Your task to perform on an android device: Open Wikipedia Image 0: 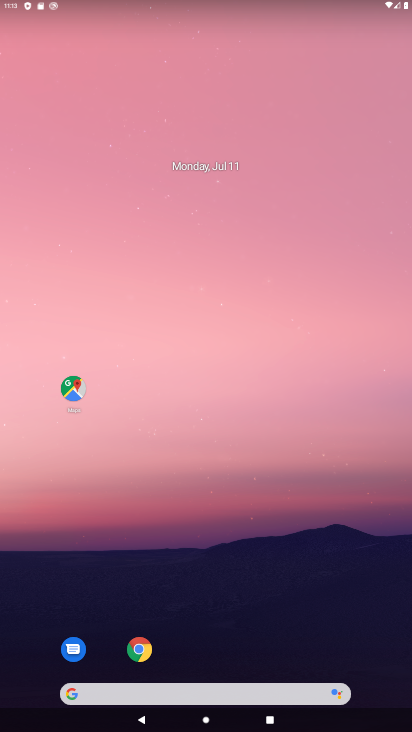
Step 0: click (145, 647)
Your task to perform on an android device: Open Wikipedia Image 1: 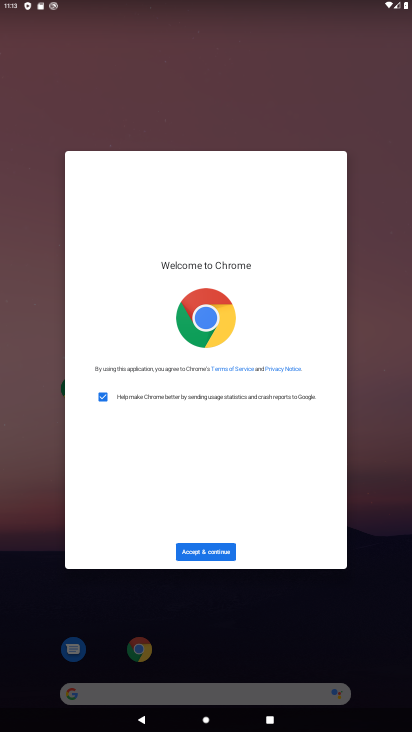
Step 1: click (204, 549)
Your task to perform on an android device: Open Wikipedia Image 2: 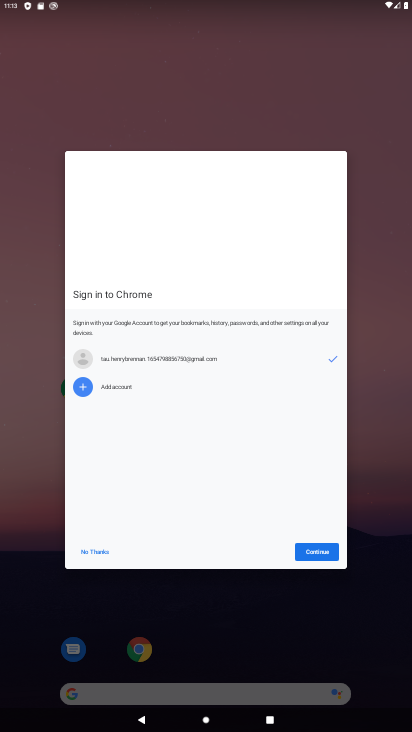
Step 2: click (328, 541)
Your task to perform on an android device: Open Wikipedia Image 3: 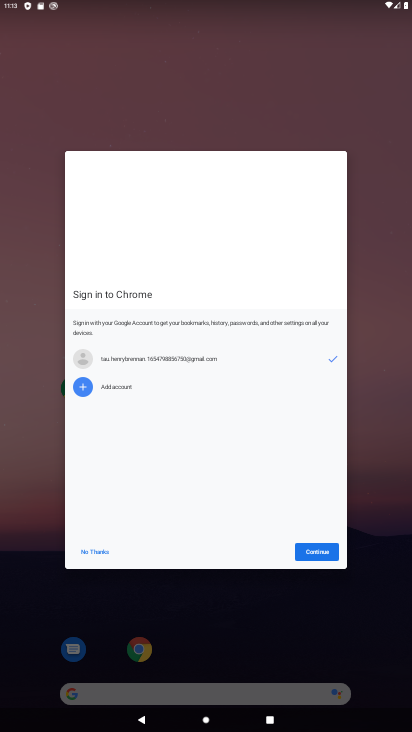
Step 3: click (315, 554)
Your task to perform on an android device: Open Wikipedia Image 4: 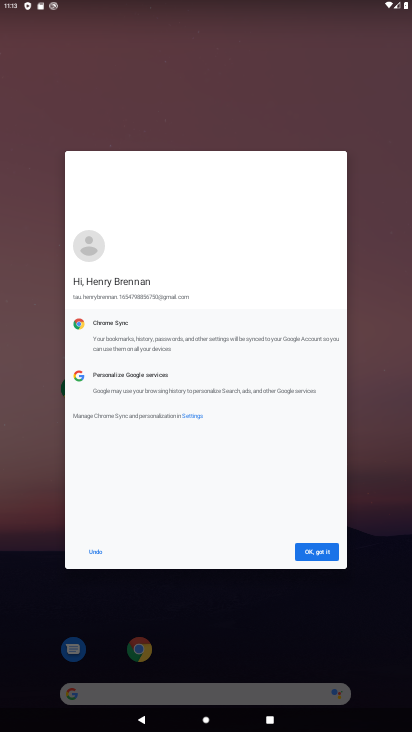
Step 4: click (313, 555)
Your task to perform on an android device: Open Wikipedia Image 5: 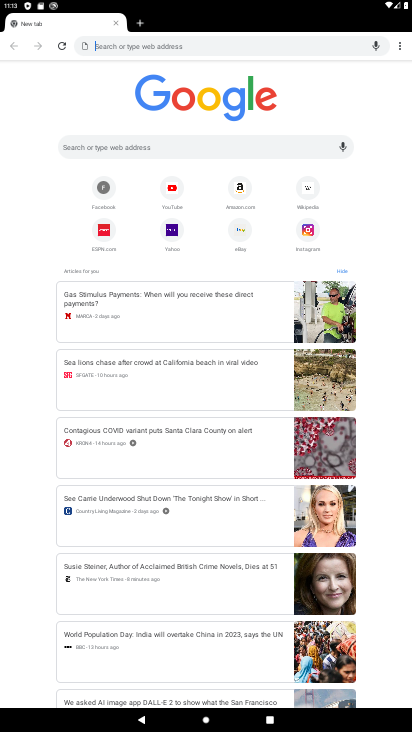
Step 5: click (308, 190)
Your task to perform on an android device: Open Wikipedia Image 6: 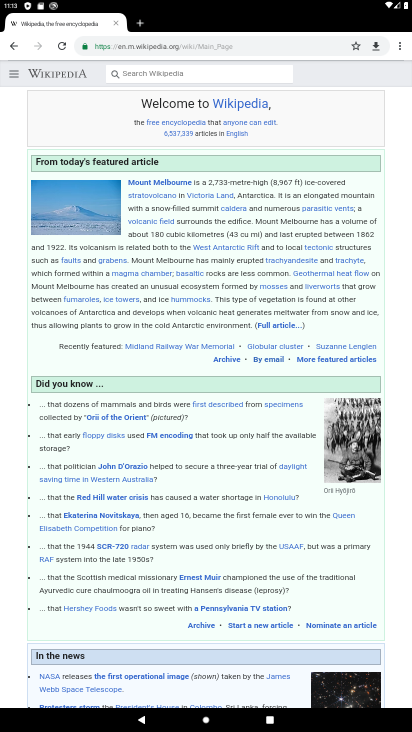
Step 6: task complete